Your task to perform on an android device: How do I get to the nearest JCPenney? Image 0: 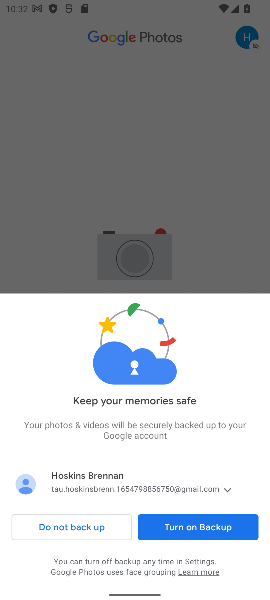
Step 0: press home button
Your task to perform on an android device: How do I get to the nearest JCPenney? Image 1: 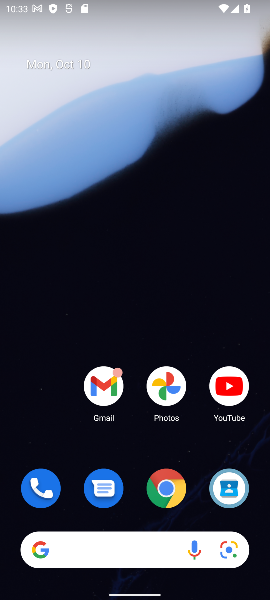
Step 1: click (167, 493)
Your task to perform on an android device: How do I get to the nearest JCPenney? Image 2: 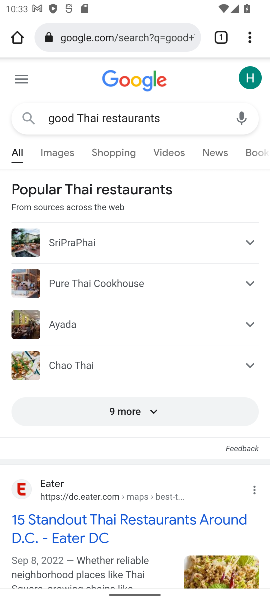
Step 2: click (203, 119)
Your task to perform on an android device: How do I get to the nearest JCPenney? Image 3: 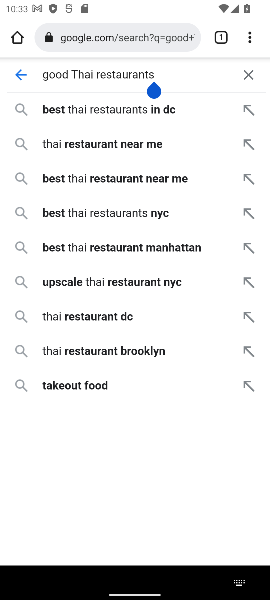
Step 3: click (251, 68)
Your task to perform on an android device: How do I get to the nearest JCPenney? Image 4: 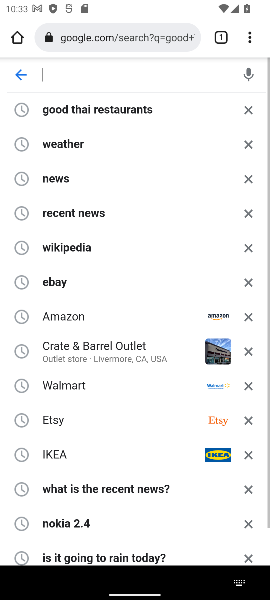
Step 4: type "How do I get to the nearest JCPenney?"
Your task to perform on an android device: How do I get to the nearest JCPenney? Image 5: 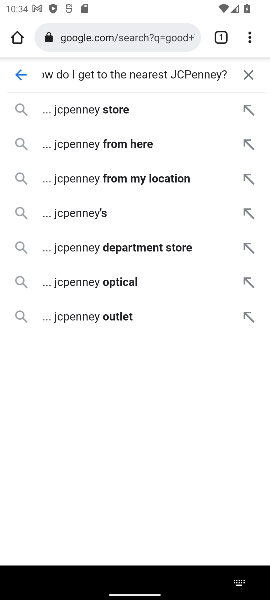
Step 5: click (84, 215)
Your task to perform on an android device: How do I get to the nearest JCPenney? Image 6: 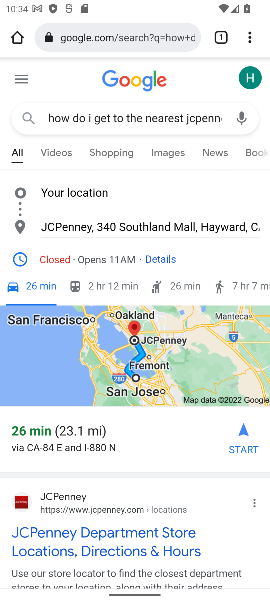
Step 6: task complete